Your task to perform on an android device: Show me popular games on the Play Store Image 0: 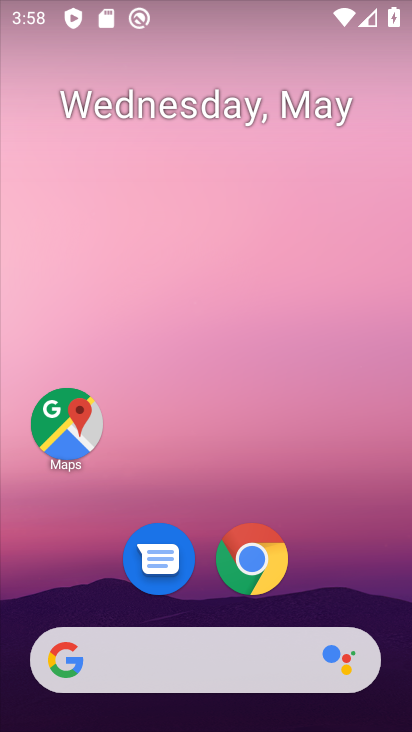
Step 0: drag from (341, 567) to (267, 95)
Your task to perform on an android device: Show me popular games on the Play Store Image 1: 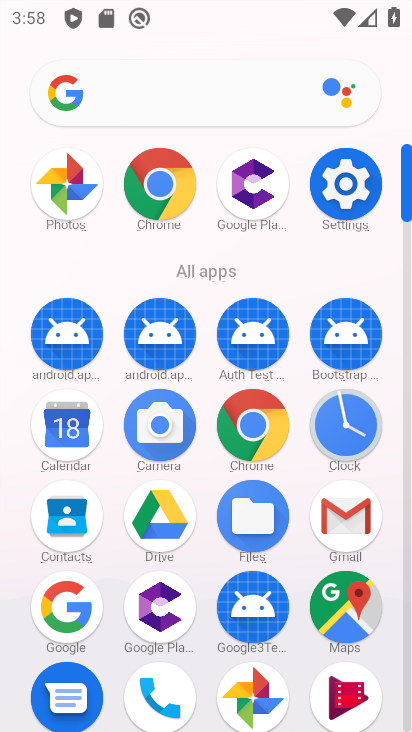
Step 1: drag from (204, 649) to (238, 278)
Your task to perform on an android device: Show me popular games on the Play Store Image 2: 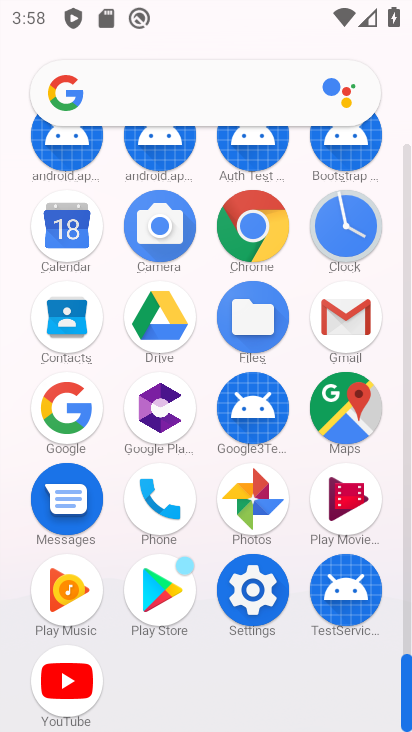
Step 2: click (171, 604)
Your task to perform on an android device: Show me popular games on the Play Store Image 3: 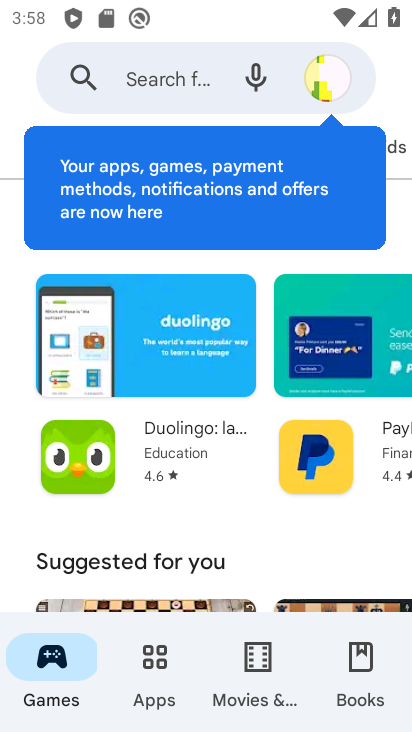
Step 3: click (266, 265)
Your task to perform on an android device: Show me popular games on the Play Store Image 4: 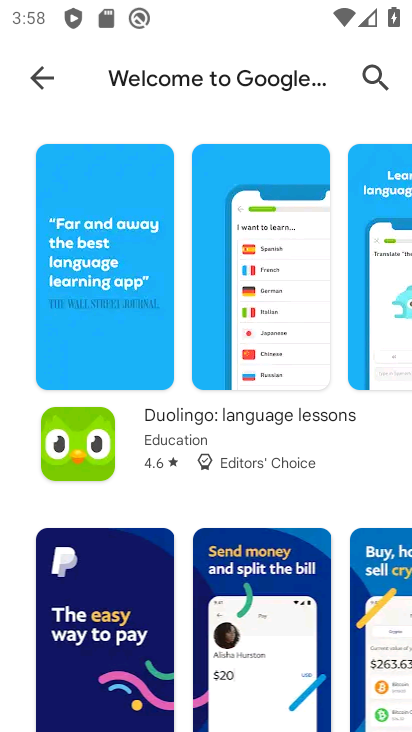
Step 4: click (49, 84)
Your task to perform on an android device: Show me popular games on the Play Store Image 5: 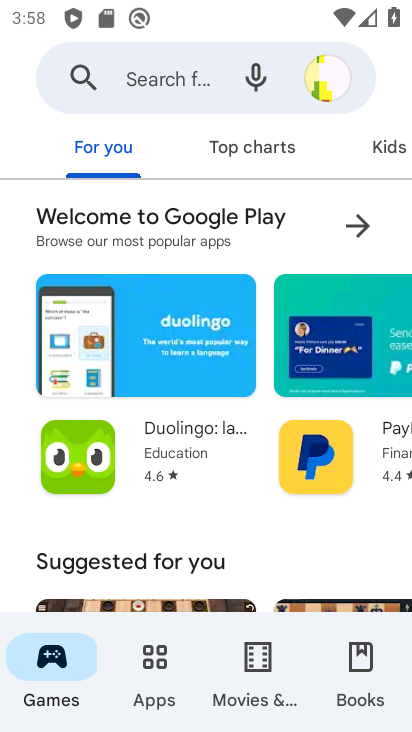
Step 5: click (239, 140)
Your task to perform on an android device: Show me popular games on the Play Store Image 6: 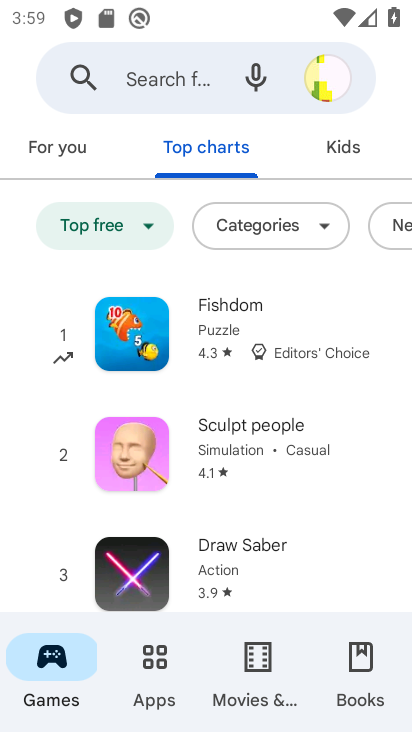
Step 6: task complete